Your task to perform on an android device: turn pop-ups on in chrome Image 0: 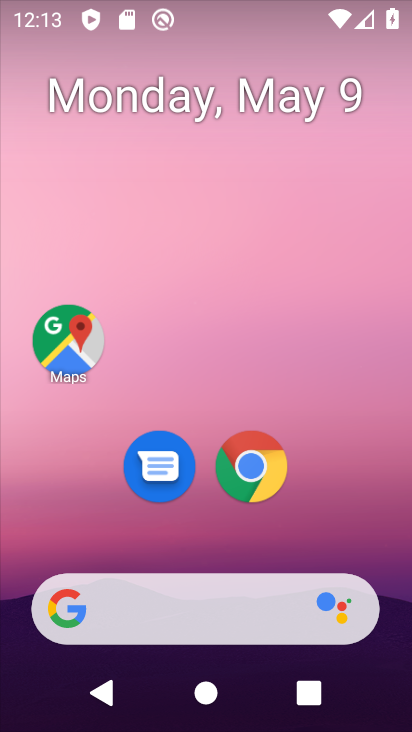
Step 0: drag from (306, 130) to (284, 80)
Your task to perform on an android device: turn pop-ups on in chrome Image 1: 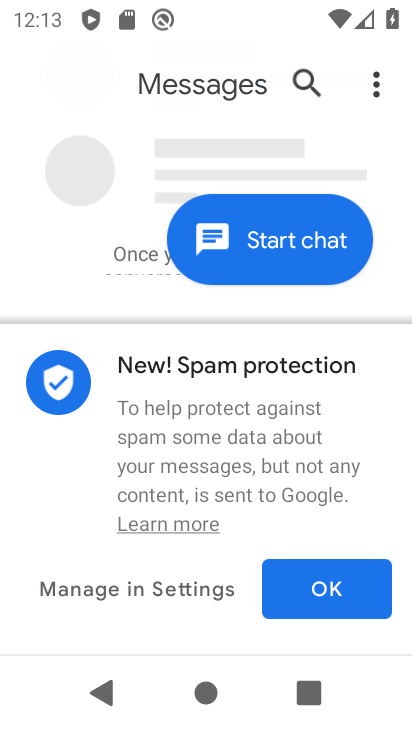
Step 1: press home button
Your task to perform on an android device: turn pop-ups on in chrome Image 2: 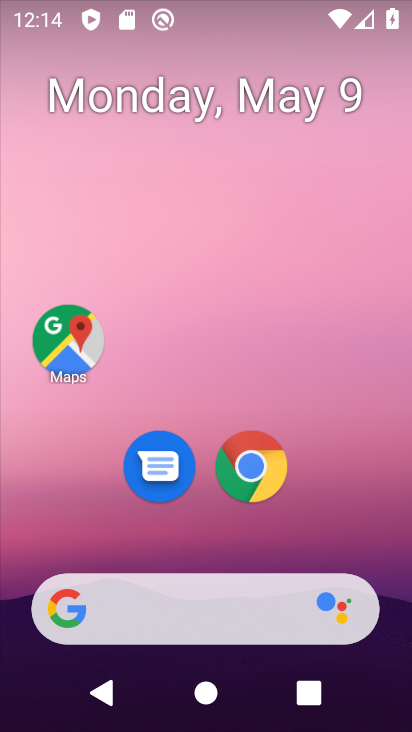
Step 2: drag from (378, 563) to (310, 219)
Your task to perform on an android device: turn pop-ups on in chrome Image 3: 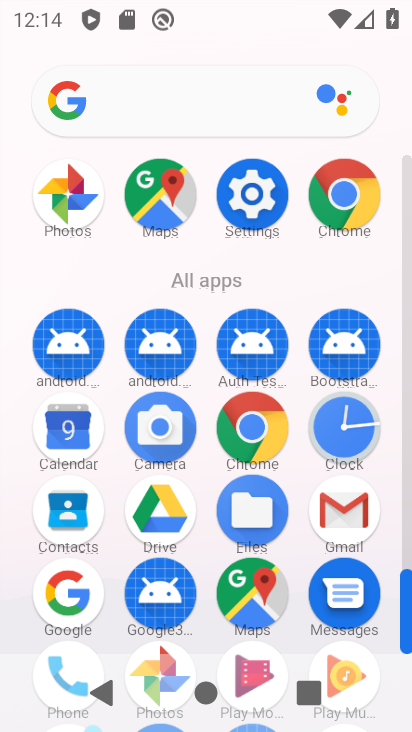
Step 3: click (358, 199)
Your task to perform on an android device: turn pop-ups on in chrome Image 4: 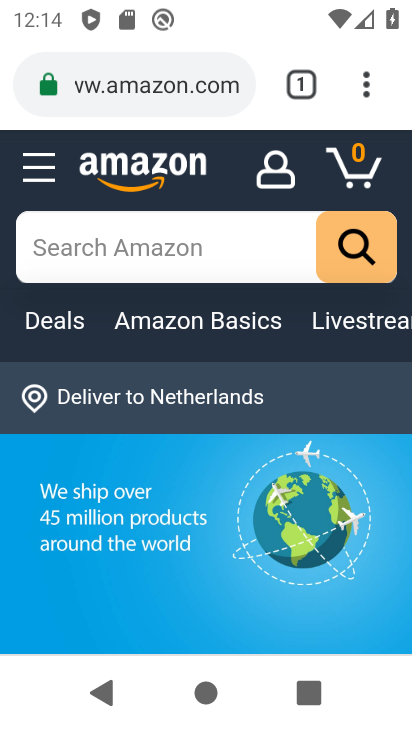
Step 4: click (360, 89)
Your task to perform on an android device: turn pop-ups on in chrome Image 5: 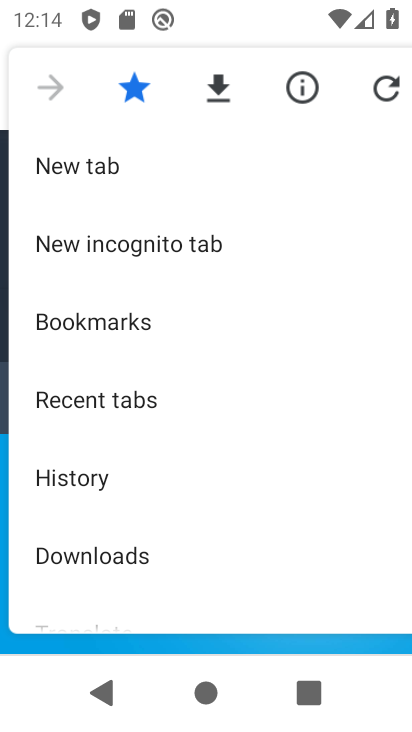
Step 5: drag from (223, 600) to (211, 186)
Your task to perform on an android device: turn pop-ups on in chrome Image 6: 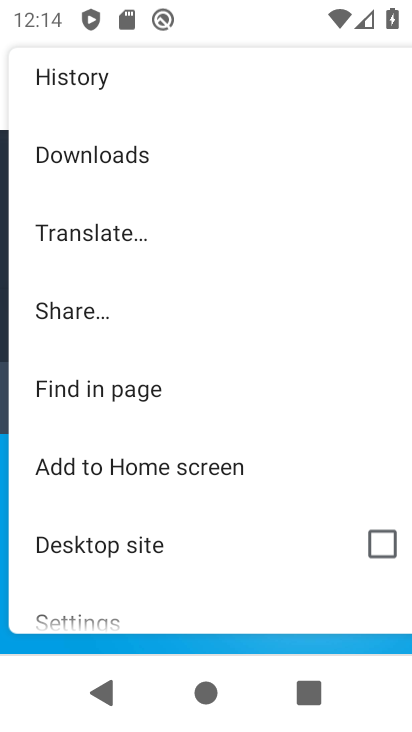
Step 6: click (227, 612)
Your task to perform on an android device: turn pop-ups on in chrome Image 7: 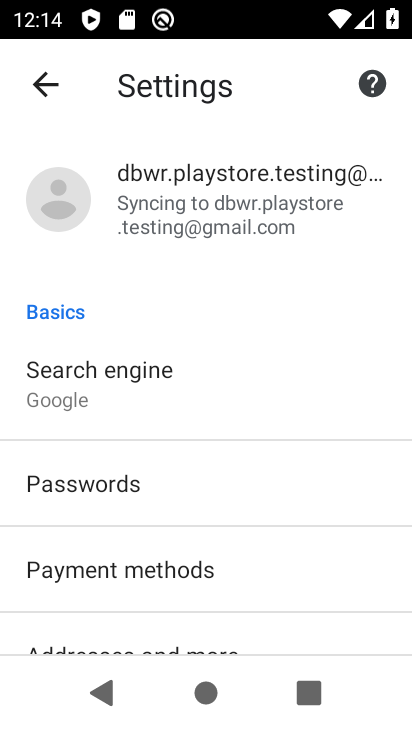
Step 7: drag from (267, 639) to (245, 146)
Your task to perform on an android device: turn pop-ups on in chrome Image 8: 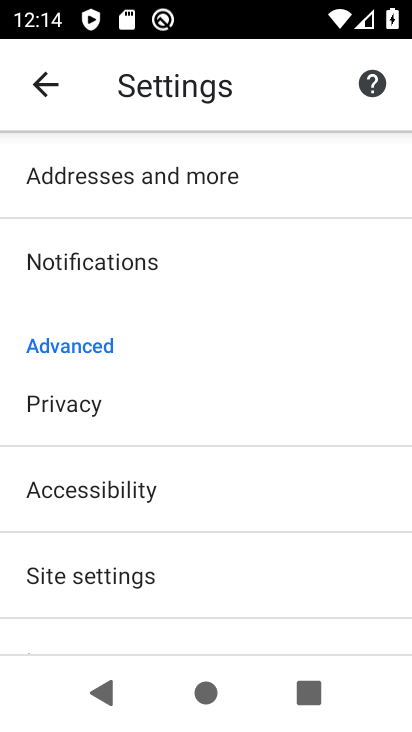
Step 8: click (299, 560)
Your task to perform on an android device: turn pop-ups on in chrome Image 9: 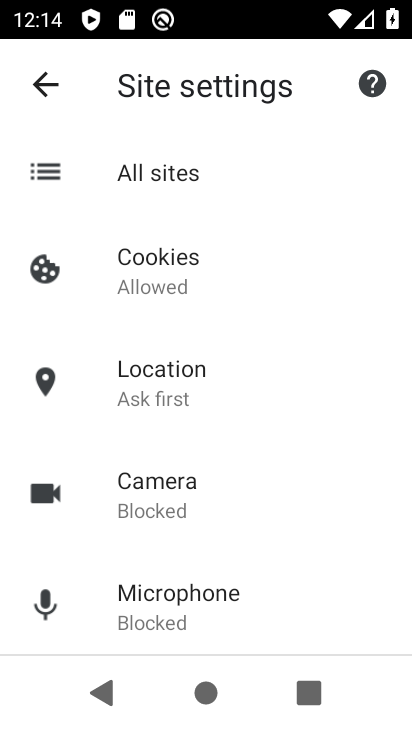
Step 9: drag from (324, 613) to (274, 194)
Your task to perform on an android device: turn pop-ups on in chrome Image 10: 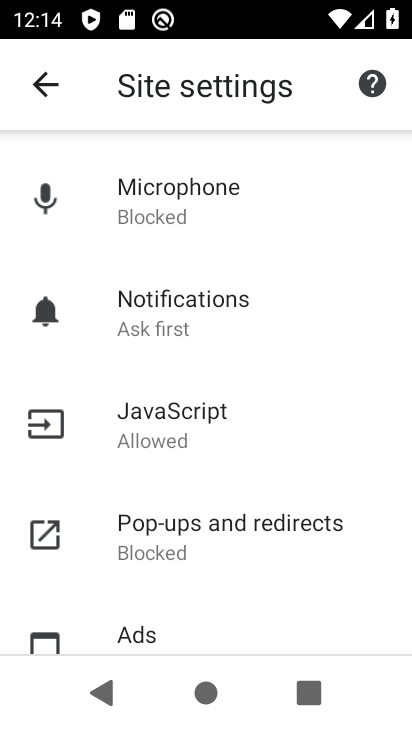
Step 10: click (329, 533)
Your task to perform on an android device: turn pop-ups on in chrome Image 11: 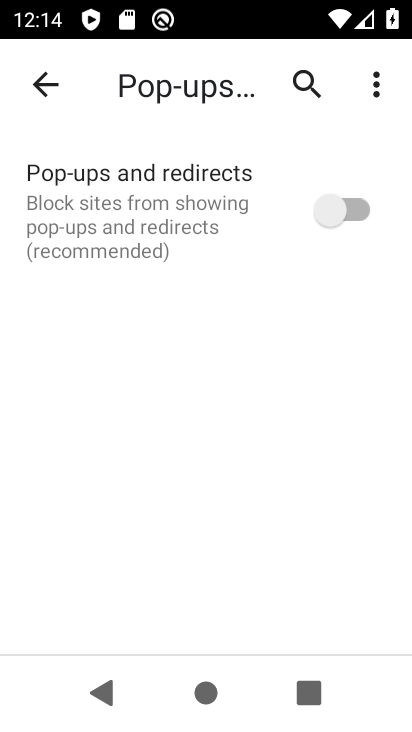
Step 11: click (347, 206)
Your task to perform on an android device: turn pop-ups on in chrome Image 12: 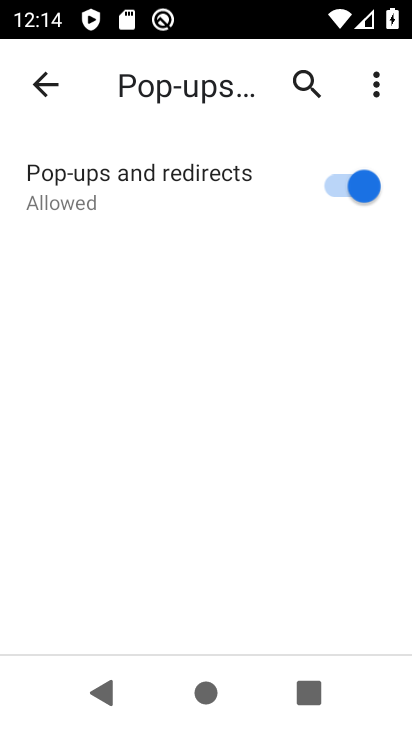
Step 12: task complete